Your task to perform on an android device: star an email in the gmail app Image 0: 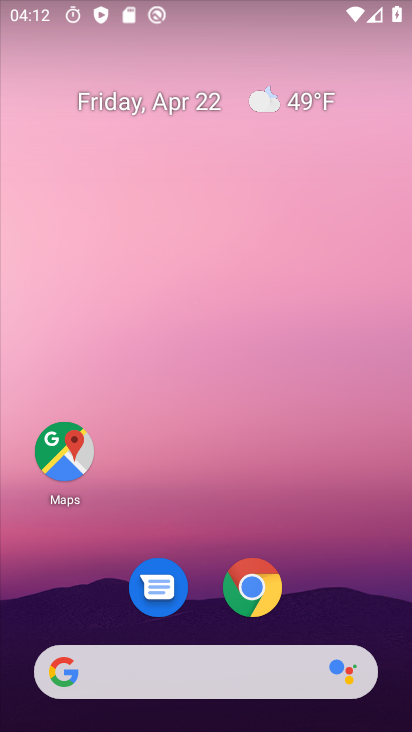
Step 0: drag from (384, 578) to (387, 25)
Your task to perform on an android device: star an email in the gmail app Image 1: 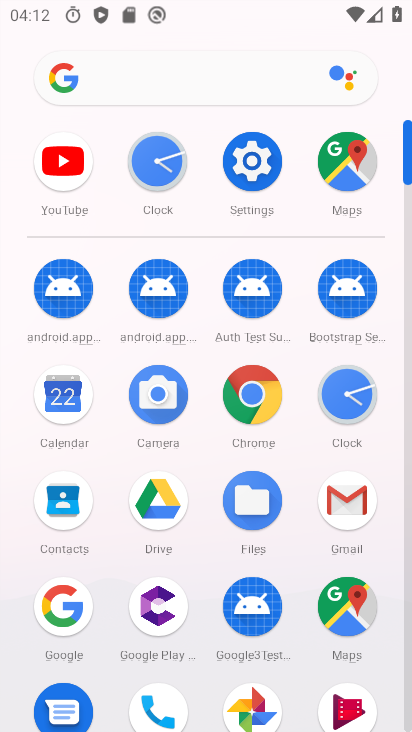
Step 1: click (342, 505)
Your task to perform on an android device: star an email in the gmail app Image 2: 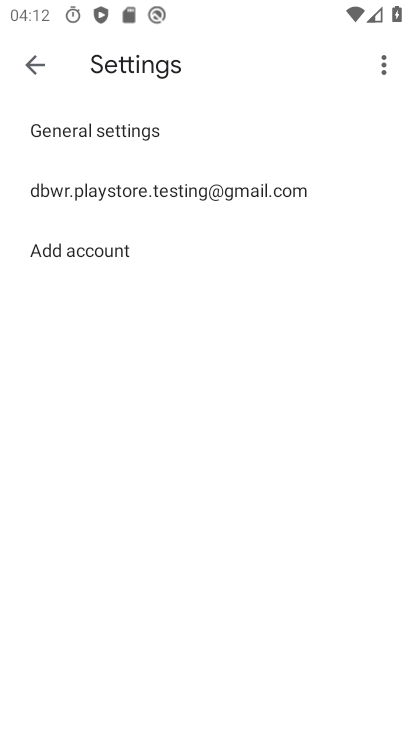
Step 2: click (33, 70)
Your task to perform on an android device: star an email in the gmail app Image 3: 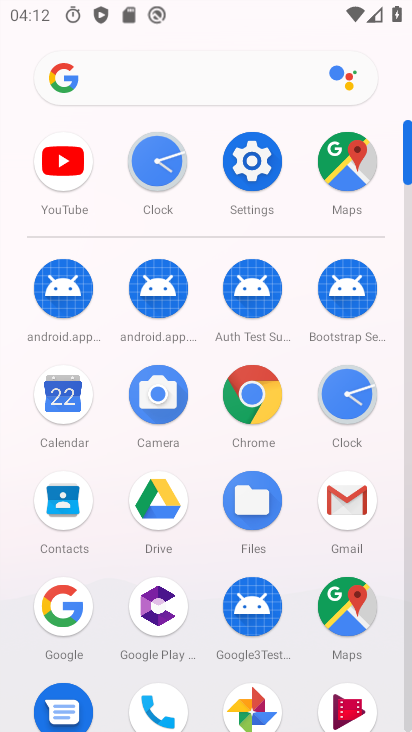
Step 3: click (332, 496)
Your task to perform on an android device: star an email in the gmail app Image 4: 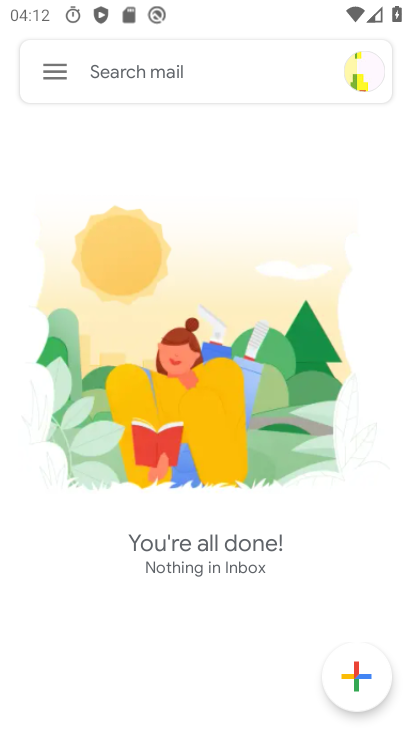
Step 4: click (52, 74)
Your task to perform on an android device: star an email in the gmail app Image 5: 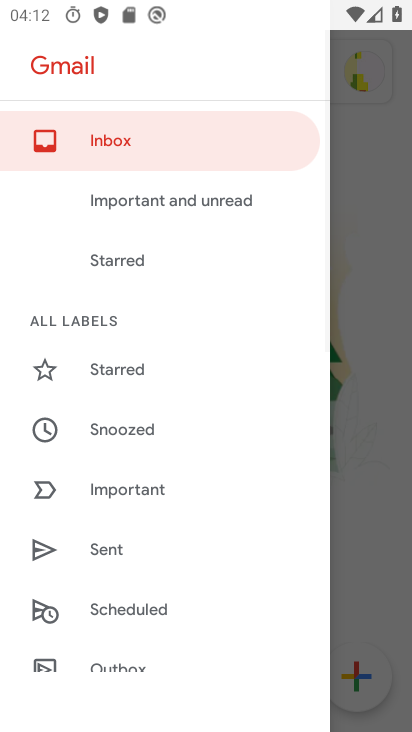
Step 5: drag from (219, 549) to (177, 92)
Your task to perform on an android device: star an email in the gmail app Image 6: 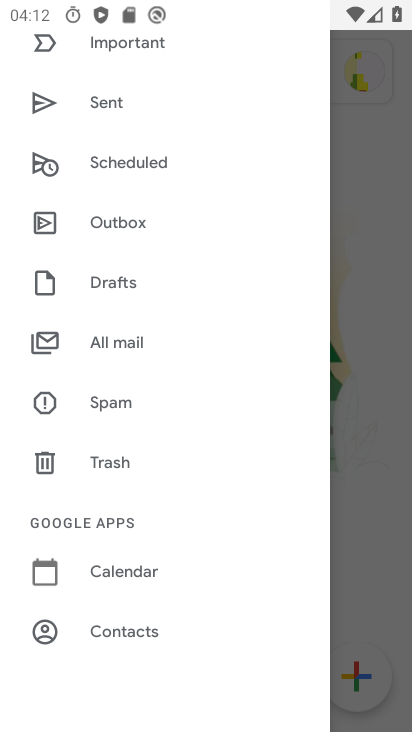
Step 6: click (109, 342)
Your task to perform on an android device: star an email in the gmail app Image 7: 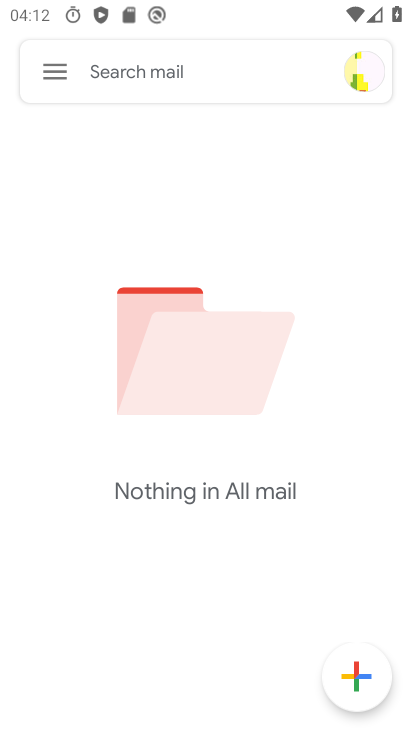
Step 7: task complete